Your task to perform on an android device: Check out the top rated books on Goodreads. Image 0: 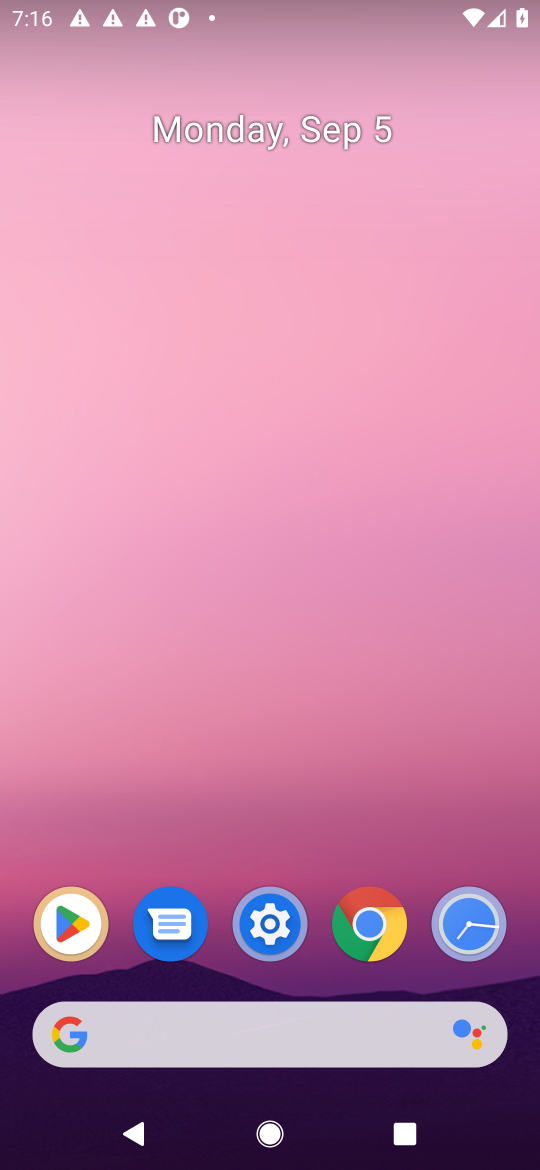
Step 0: click (330, 1032)
Your task to perform on an android device: Check out the top rated books on Goodreads. Image 1: 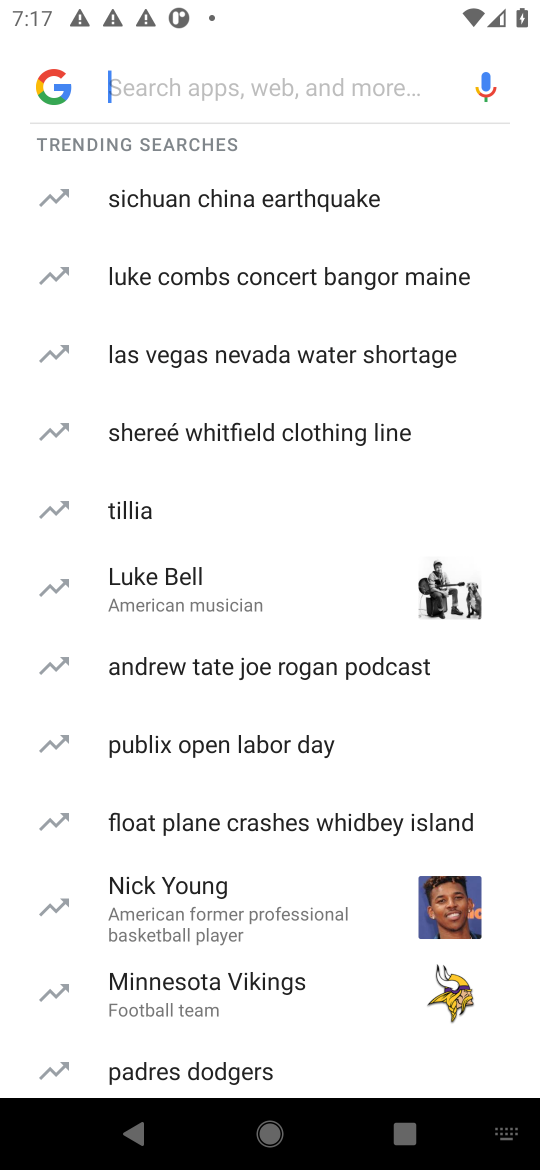
Step 1: type "goodreads"
Your task to perform on an android device: Check out the top rated books on Goodreads. Image 2: 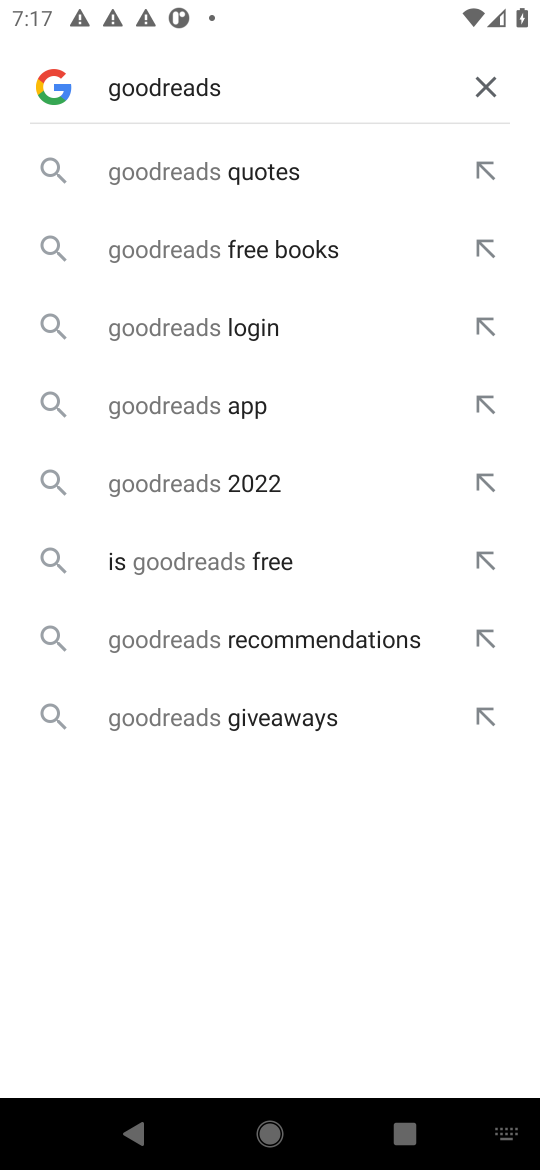
Step 2: press enter
Your task to perform on an android device: Check out the top rated books on Goodreads. Image 3: 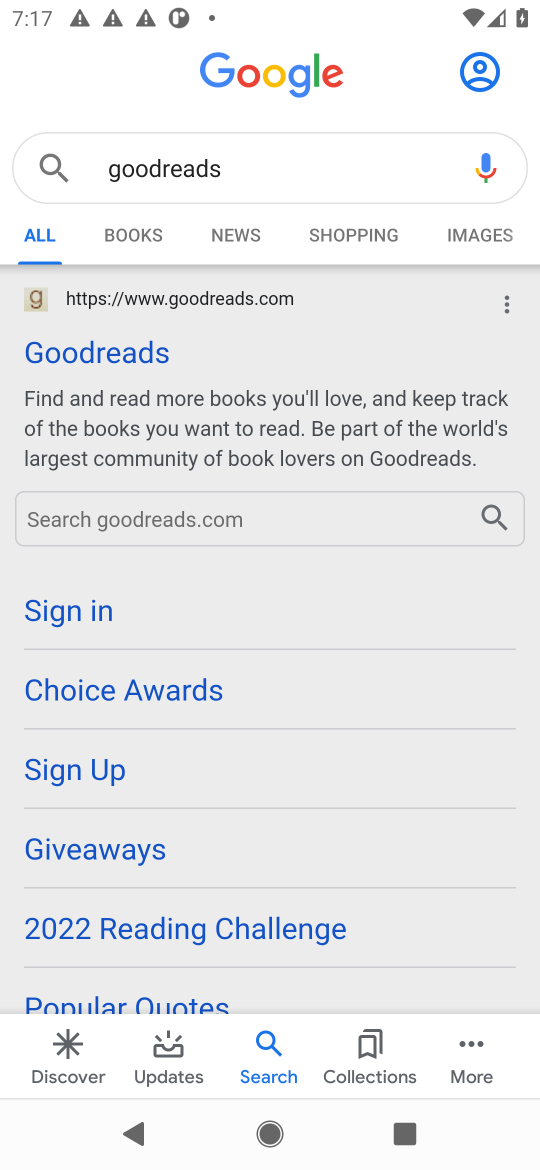
Step 3: click (119, 347)
Your task to perform on an android device: Check out the top rated books on Goodreads. Image 4: 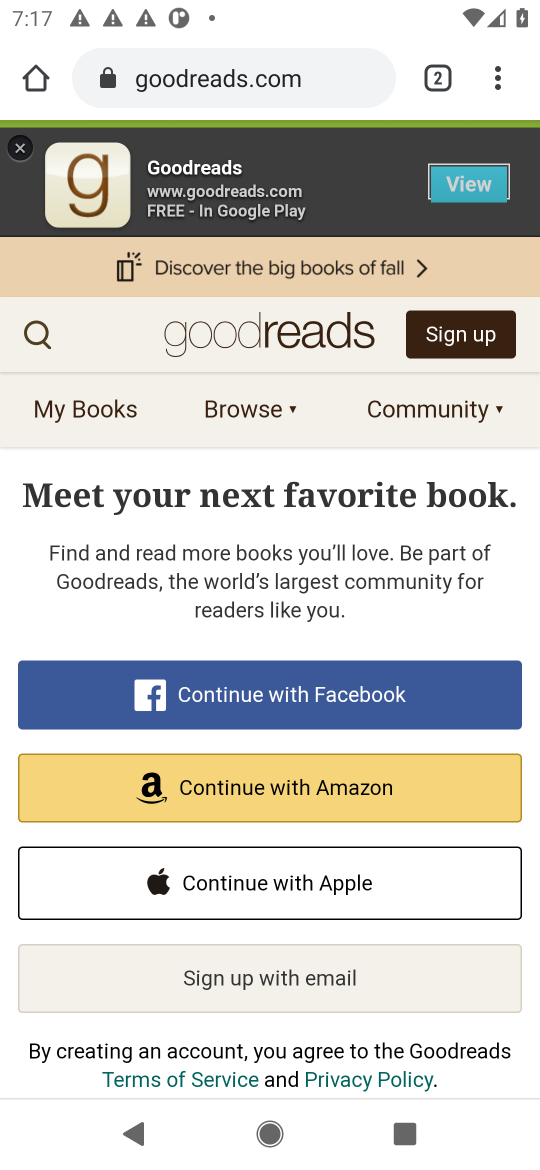
Step 4: click (37, 352)
Your task to perform on an android device: Check out the top rated books on Goodreads. Image 5: 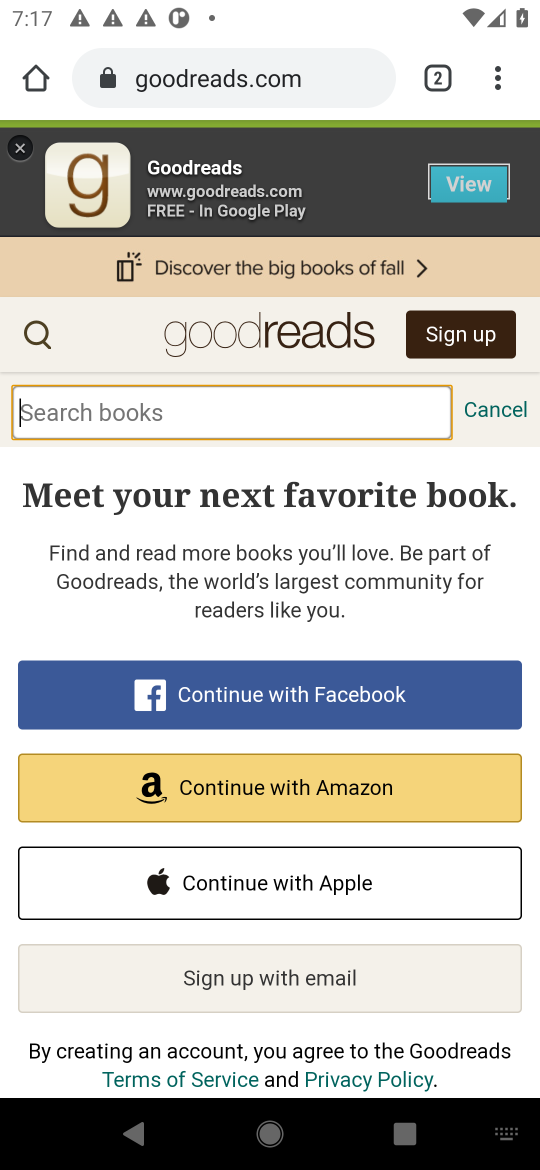
Step 5: type "top rated books"
Your task to perform on an android device: Check out the top rated books on Goodreads. Image 6: 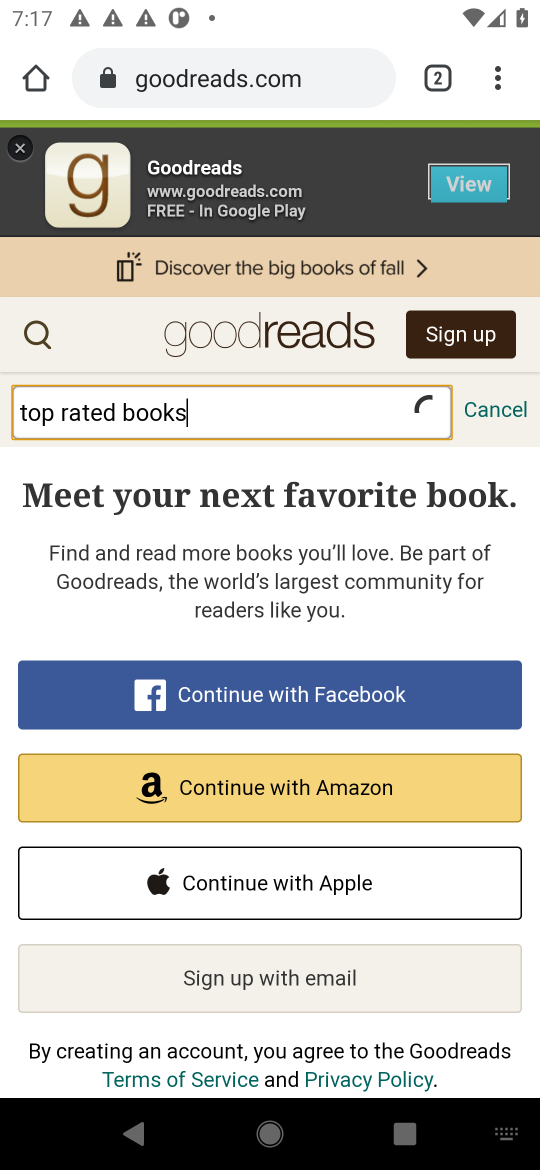
Step 6: press enter
Your task to perform on an android device: Check out the top rated books on Goodreads. Image 7: 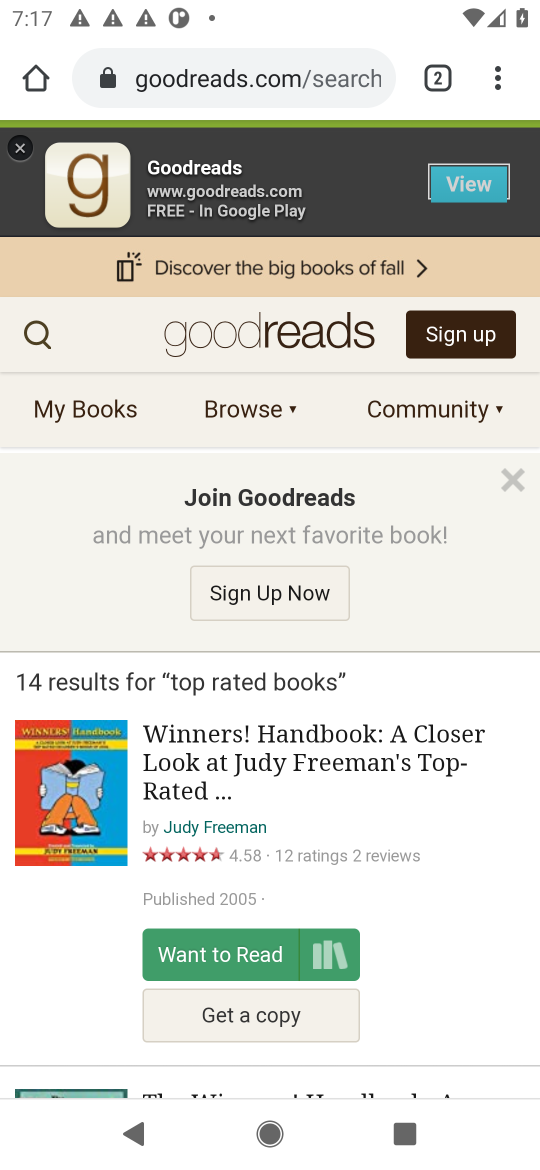
Step 7: task complete